Your task to perform on an android device: Show me popular videos on Youtube Image 0: 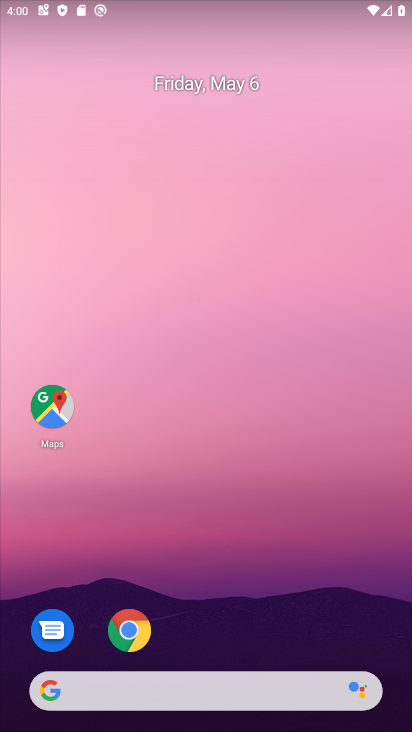
Step 0: drag from (177, 479) to (242, 77)
Your task to perform on an android device: Show me popular videos on Youtube Image 1: 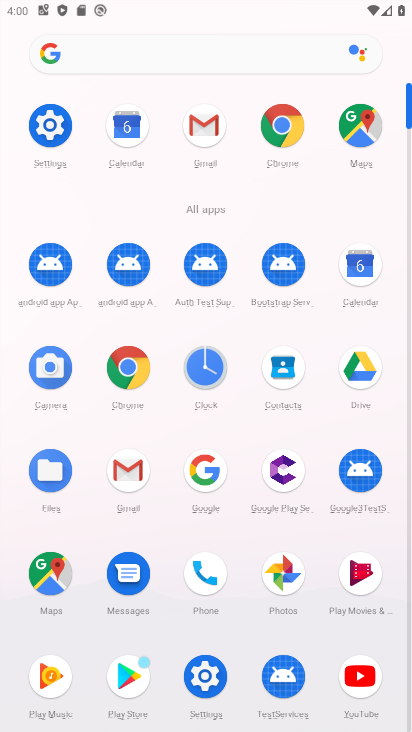
Step 1: click (358, 680)
Your task to perform on an android device: Show me popular videos on Youtube Image 2: 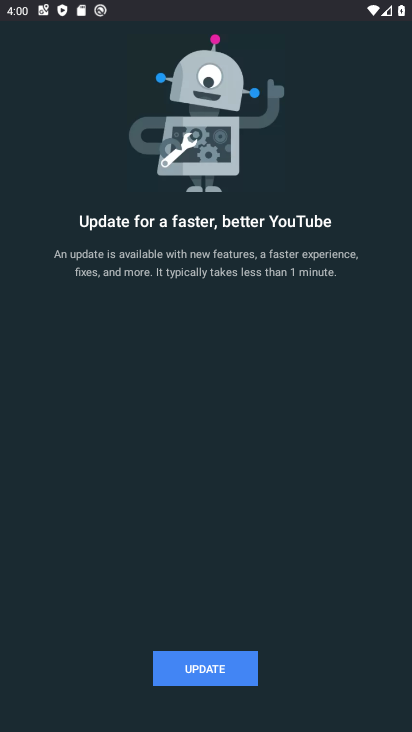
Step 2: click (222, 677)
Your task to perform on an android device: Show me popular videos on Youtube Image 3: 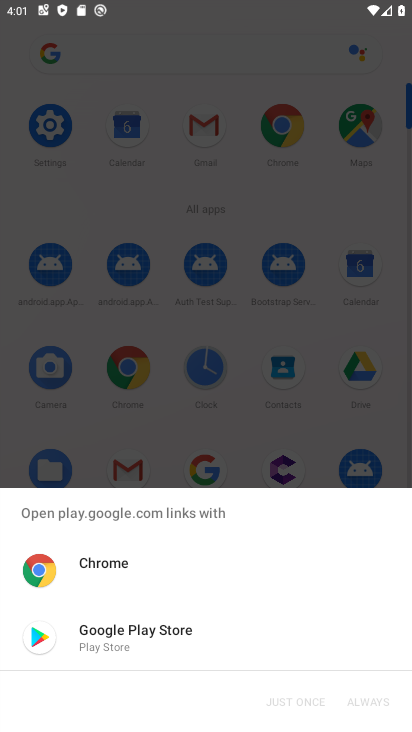
Step 3: click (149, 643)
Your task to perform on an android device: Show me popular videos on Youtube Image 4: 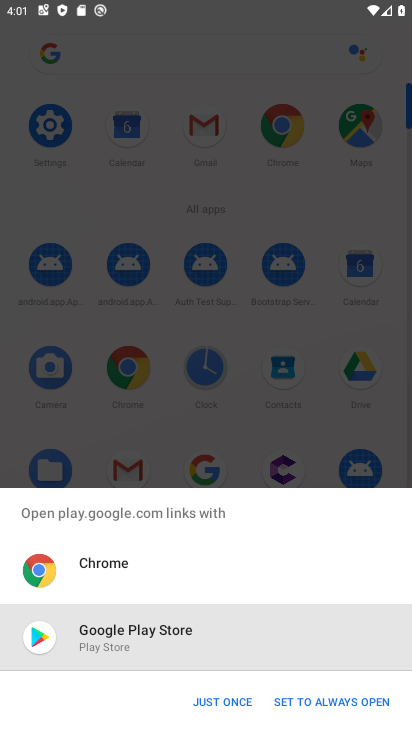
Step 4: click (234, 709)
Your task to perform on an android device: Show me popular videos on Youtube Image 5: 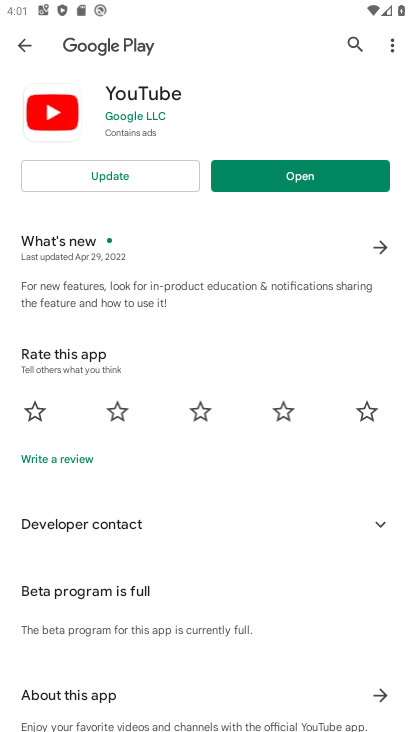
Step 5: click (296, 169)
Your task to perform on an android device: Show me popular videos on Youtube Image 6: 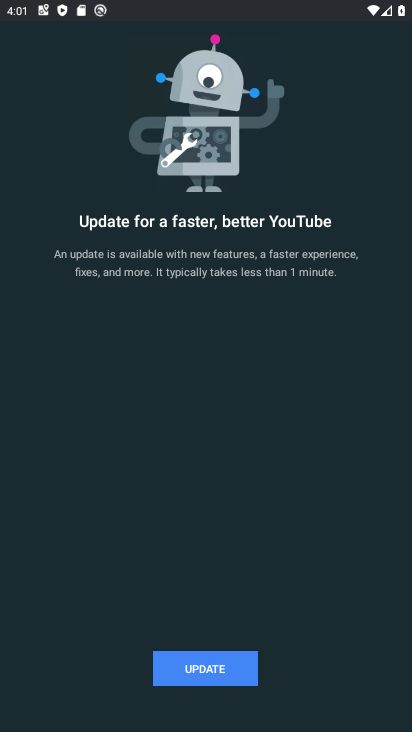
Step 6: click (201, 676)
Your task to perform on an android device: Show me popular videos on Youtube Image 7: 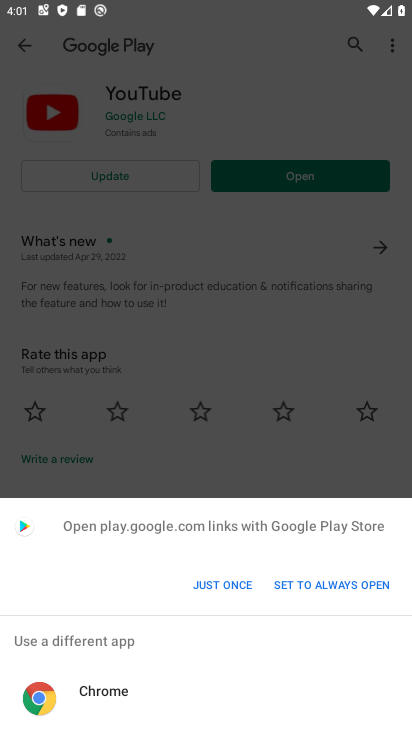
Step 7: click (214, 587)
Your task to perform on an android device: Show me popular videos on Youtube Image 8: 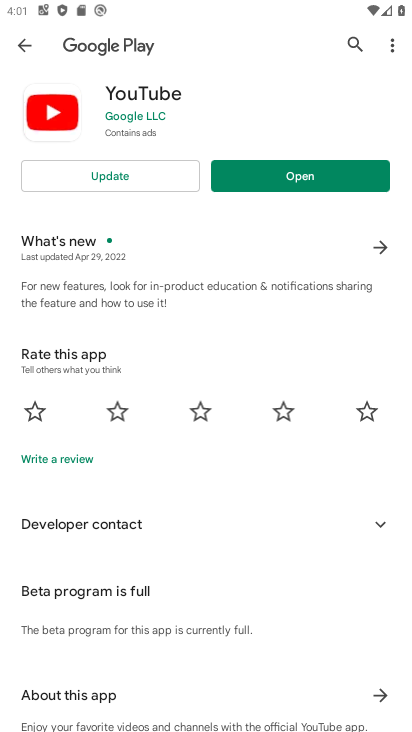
Step 8: click (120, 172)
Your task to perform on an android device: Show me popular videos on Youtube Image 9: 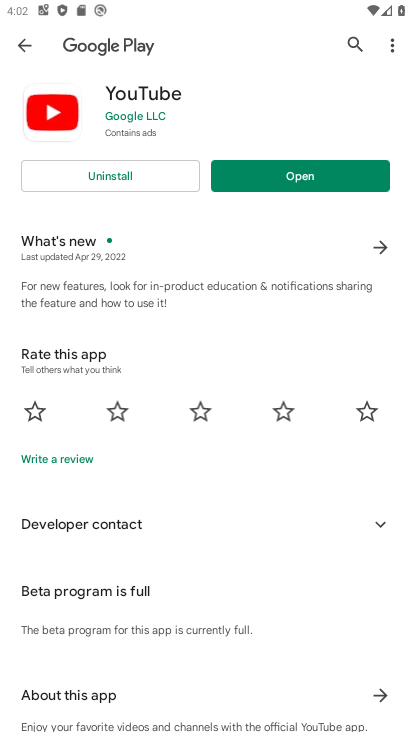
Step 9: click (271, 167)
Your task to perform on an android device: Show me popular videos on Youtube Image 10: 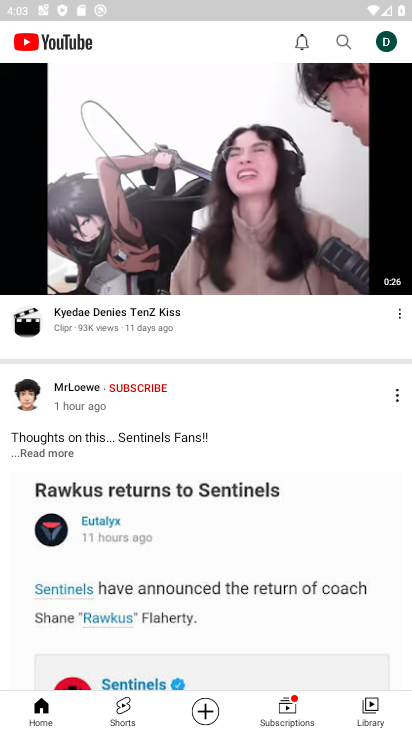
Step 10: drag from (234, 204) to (185, 711)
Your task to perform on an android device: Show me popular videos on Youtube Image 11: 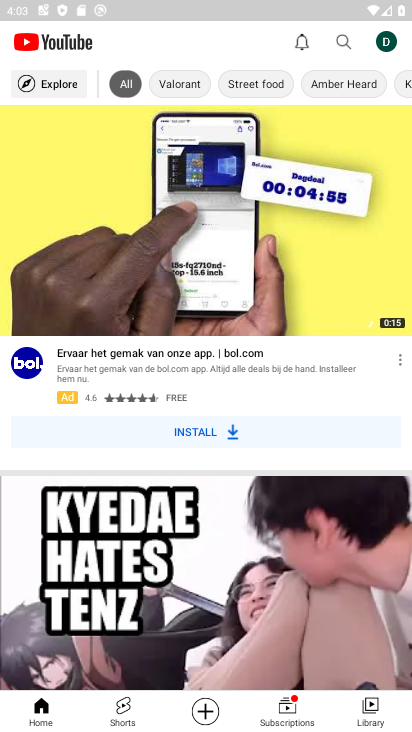
Step 11: click (45, 77)
Your task to perform on an android device: Show me popular videos on Youtube Image 12: 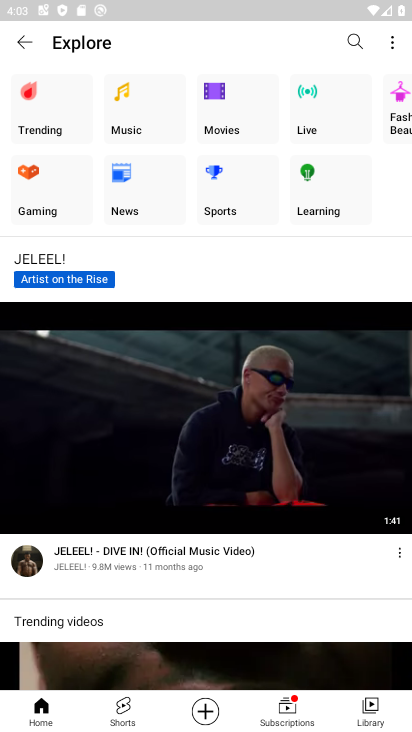
Step 12: click (41, 109)
Your task to perform on an android device: Show me popular videos on Youtube Image 13: 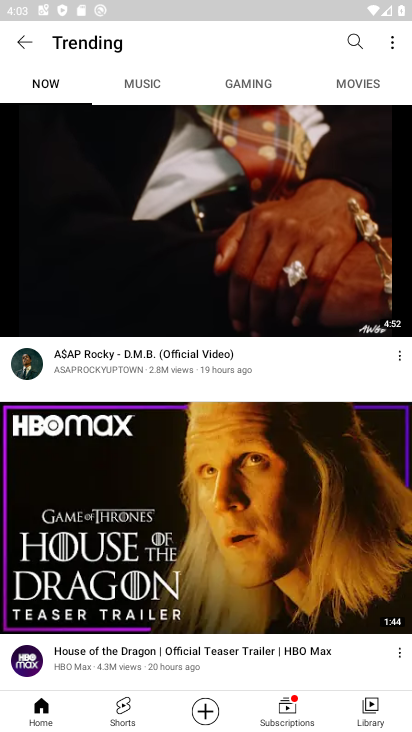
Step 13: task complete